Your task to perform on an android device: Open battery settings Image 0: 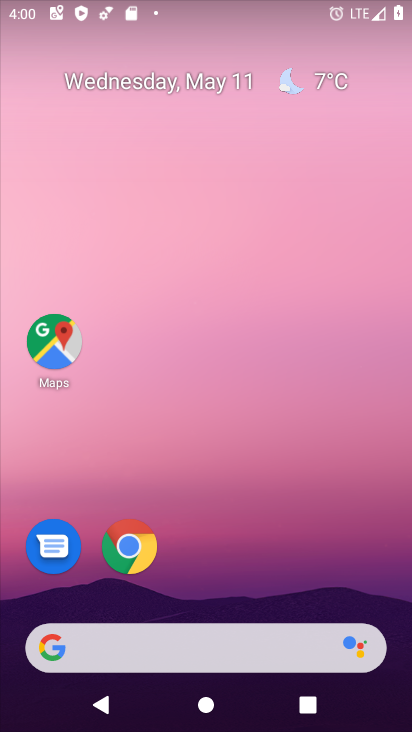
Step 0: drag from (227, 686) to (286, 4)
Your task to perform on an android device: Open battery settings Image 1: 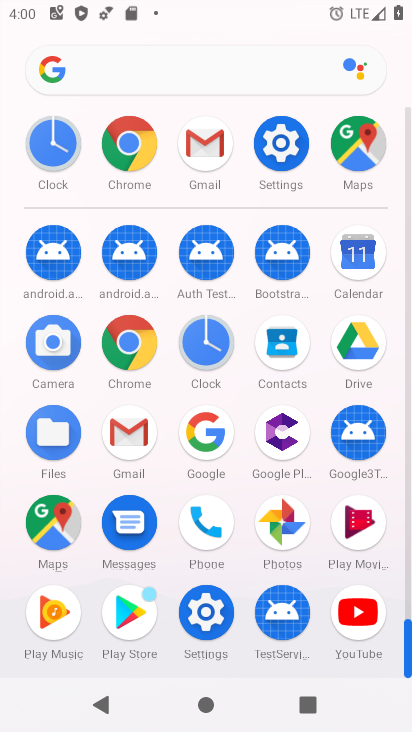
Step 1: click (281, 157)
Your task to perform on an android device: Open battery settings Image 2: 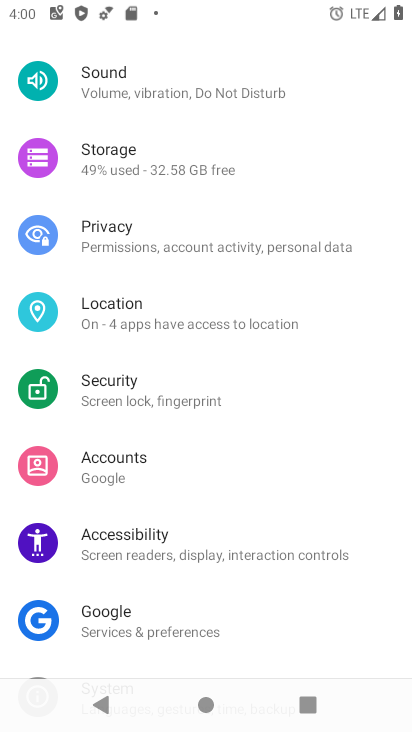
Step 2: drag from (236, 258) to (266, 582)
Your task to perform on an android device: Open battery settings Image 3: 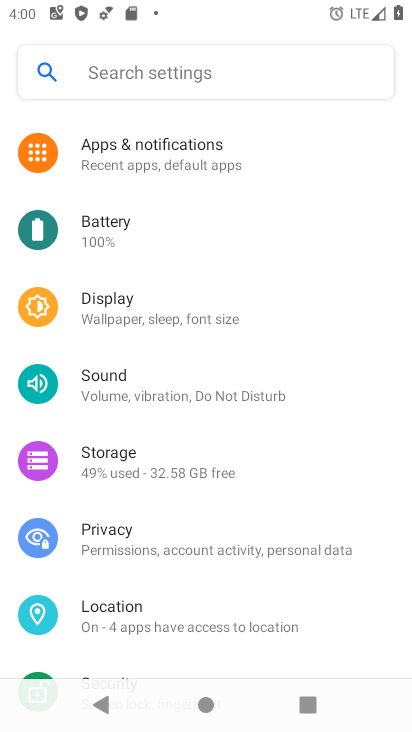
Step 3: click (116, 230)
Your task to perform on an android device: Open battery settings Image 4: 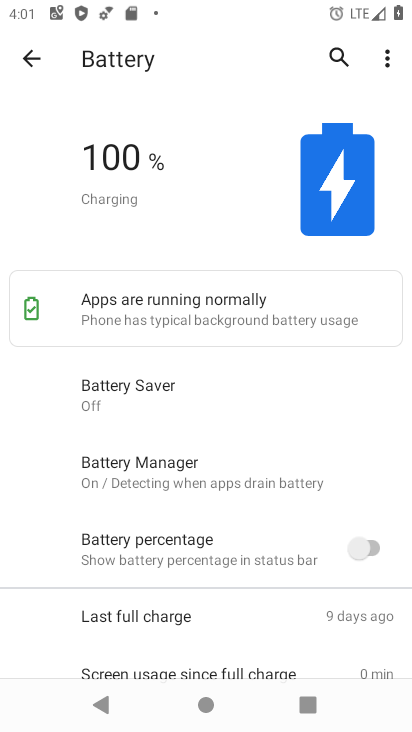
Step 4: task complete